Your task to perform on an android device: Open eBay Image 0: 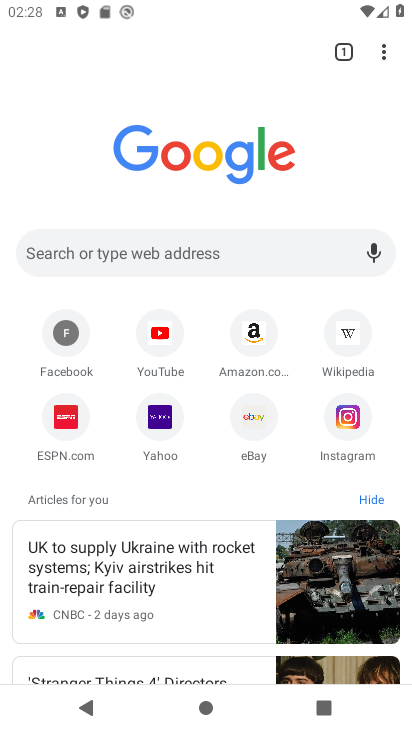
Step 0: click (232, 427)
Your task to perform on an android device: Open eBay Image 1: 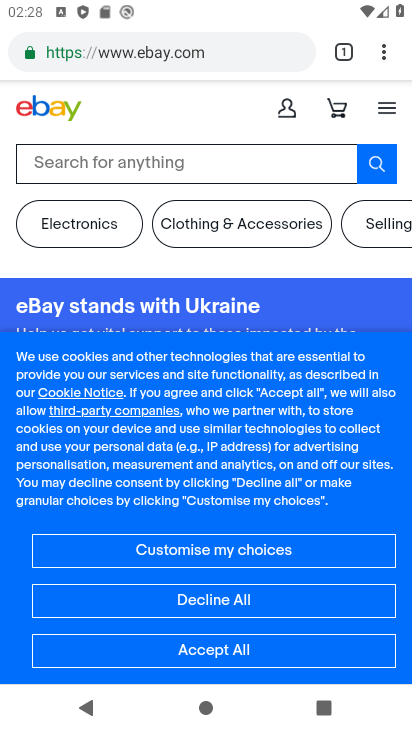
Step 1: task complete